Your task to perform on an android device: change the clock display to analog Image 0: 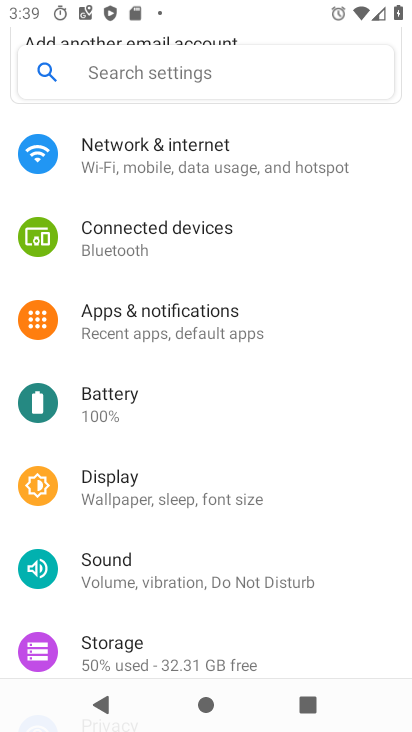
Step 0: press home button
Your task to perform on an android device: change the clock display to analog Image 1: 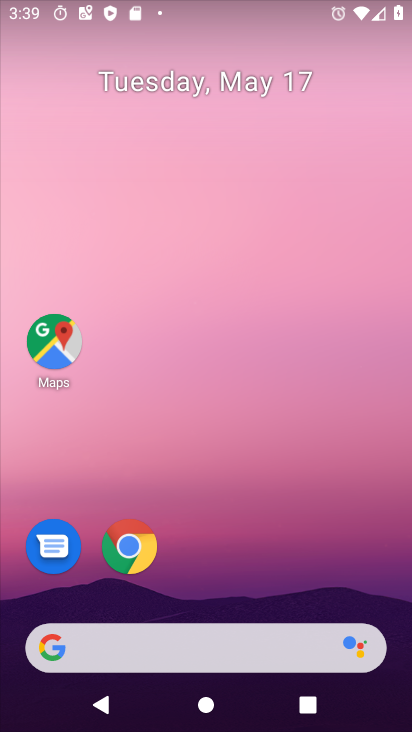
Step 1: drag from (285, 664) to (244, 273)
Your task to perform on an android device: change the clock display to analog Image 2: 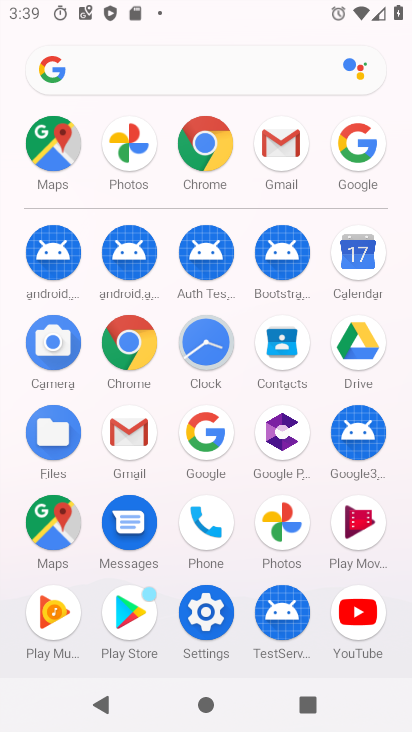
Step 2: click (219, 355)
Your task to perform on an android device: change the clock display to analog Image 3: 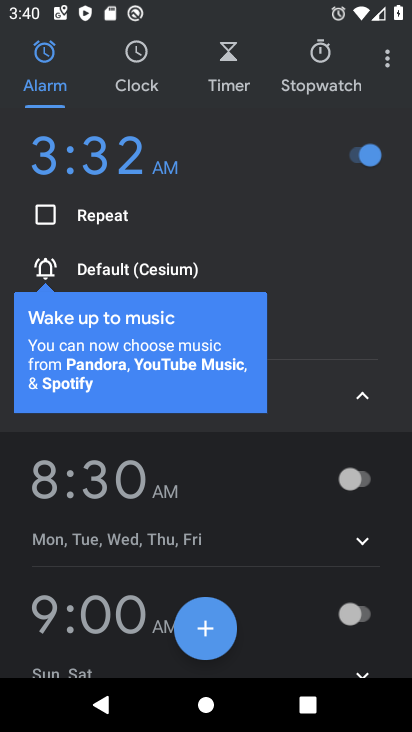
Step 3: press home button
Your task to perform on an android device: change the clock display to analog Image 4: 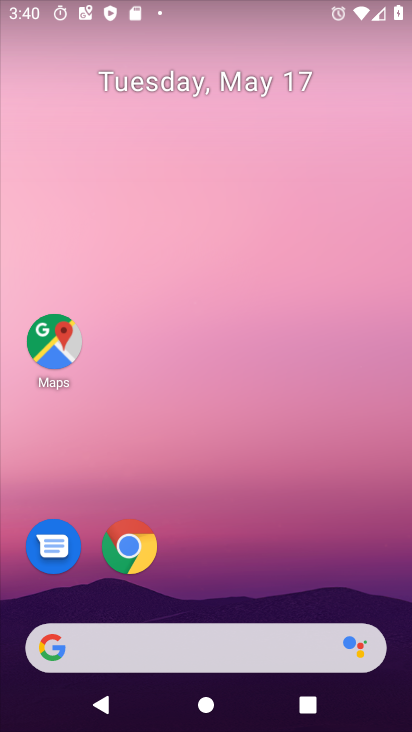
Step 4: drag from (277, 595) to (339, 1)
Your task to perform on an android device: change the clock display to analog Image 5: 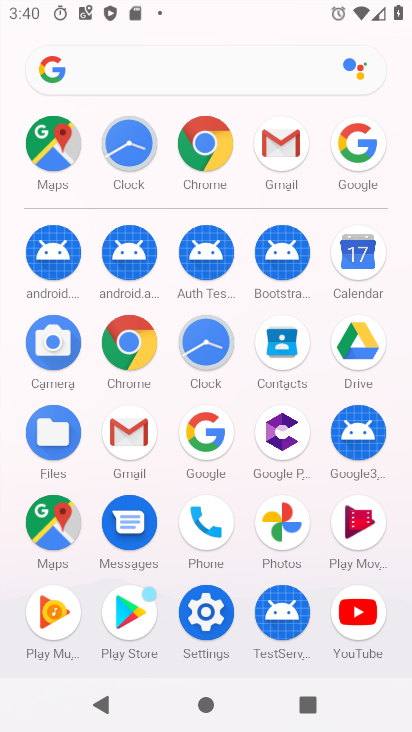
Step 5: click (206, 357)
Your task to perform on an android device: change the clock display to analog Image 6: 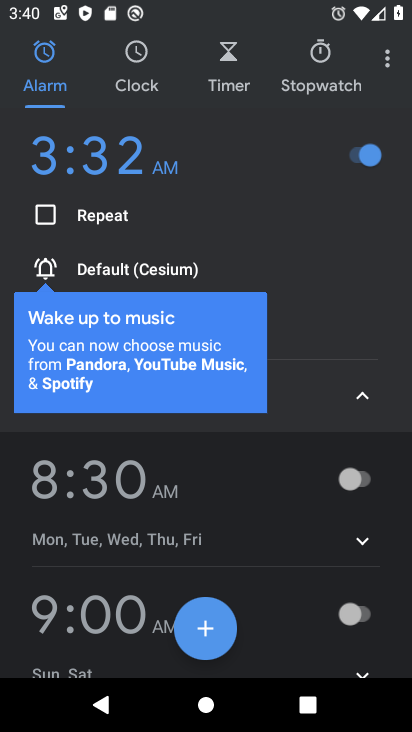
Step 6: click (391, 67)
Your task to perform on an android device: change the clock display to analog Image 7: 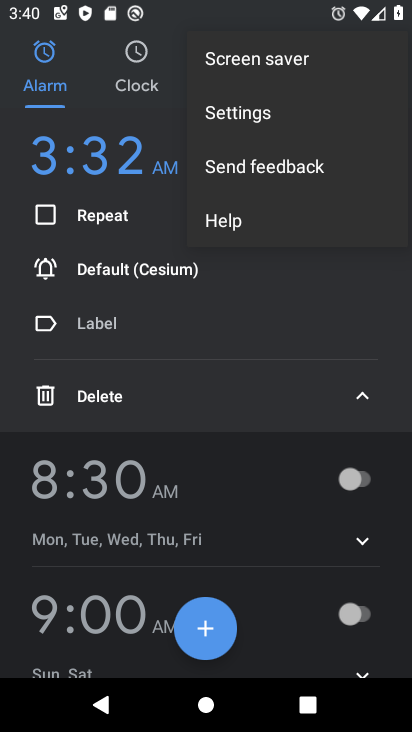
Step 7: click (257, 118)
Your task to perform on an android device: change the clock display to analog Image 8: 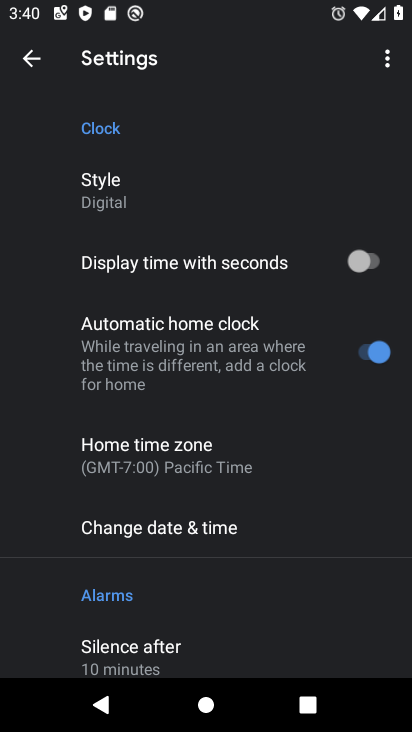
Step 8: click (170, 192)
Your task to perform on an android device: change the clock display to analog Image 9: 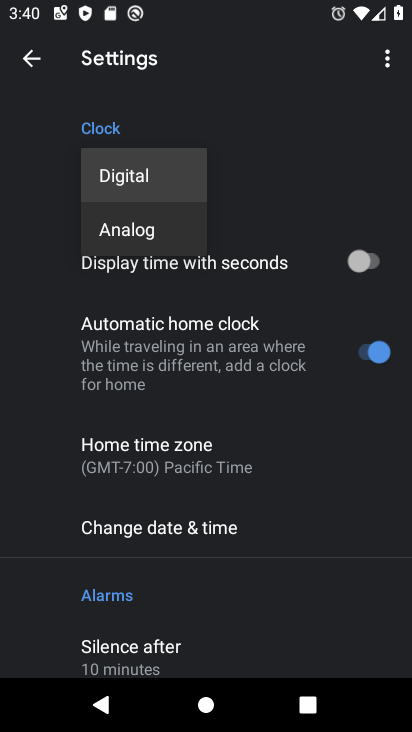
Step 9: click (153, 226)
Your task to perform on an android device: change the clock display to analog Image 10: 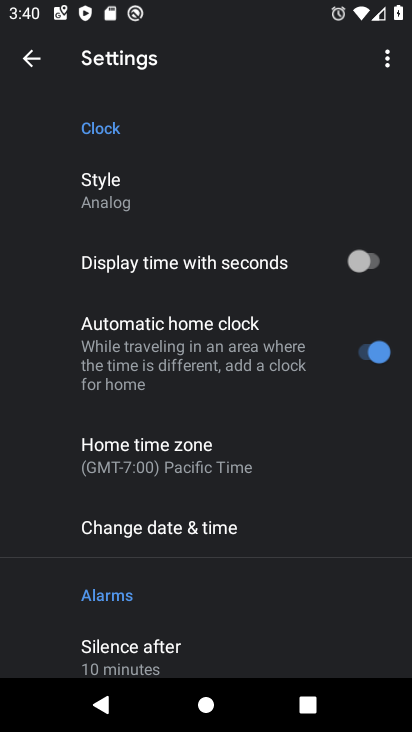
Step 10: task complete